Your task to perform on an android device: create a new album in the google photos Image 0: 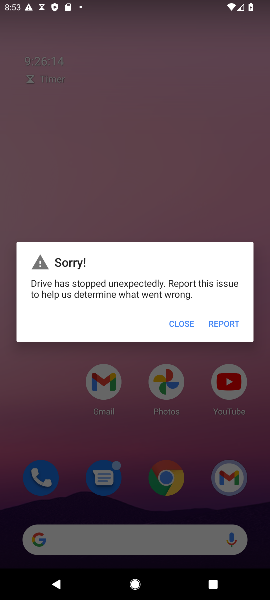
Step 0: press back button
Your task to perform on an android device: create a new album in the google photos Image 1: 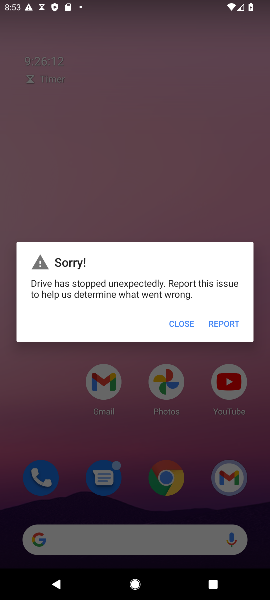
Step 1: press home button
Your task to perform on an android device: create a new album in the google photos Image 2: 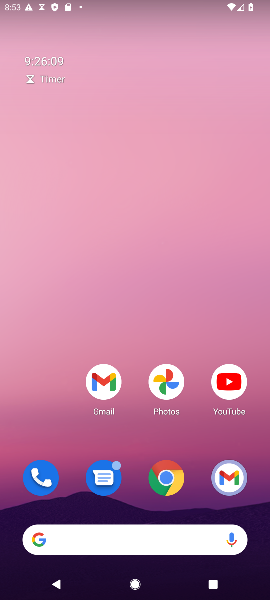
Step 2: click (151, 396)
Your task to perform on an android device: create a new album in the google photos Image 3: 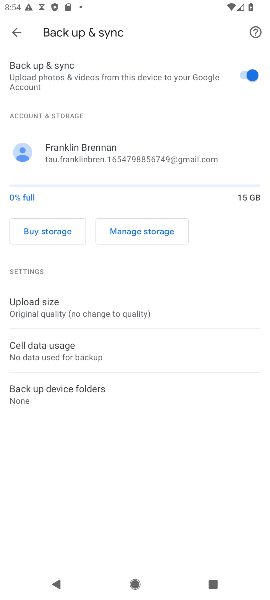
Step 3: click (13, 38)
Your task to perform on an android device: create a new album in the google photos Image 4: 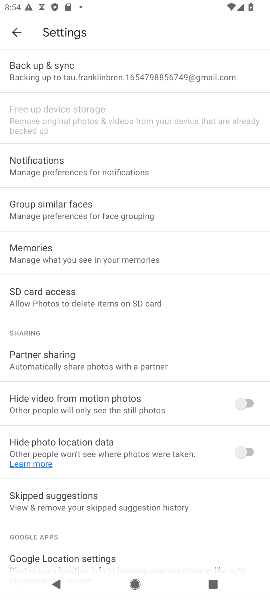
Step 4: click (9, 35)
Your task to perform on an android device: create a new album in the google photos Image 5: 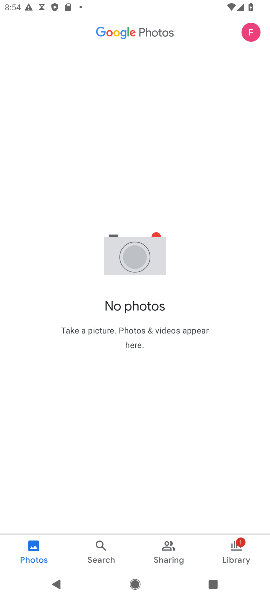
Step 5: click (237, 544)
Your task to perform on an android device: create a new album in the google photos Image 6: 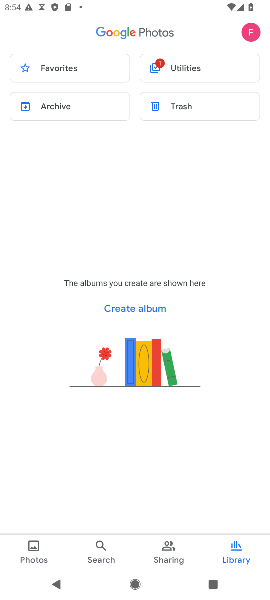
Step 6: click (145, 307)
Your task to perform on an android device: create a new album in the google photos Image 7: 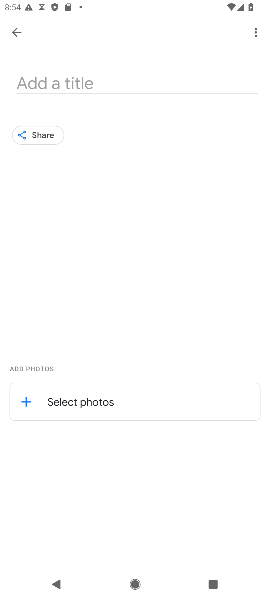
Step 7: click (121, 404)
Your task to perform on an android device: create a new album in the google photos Image 8: 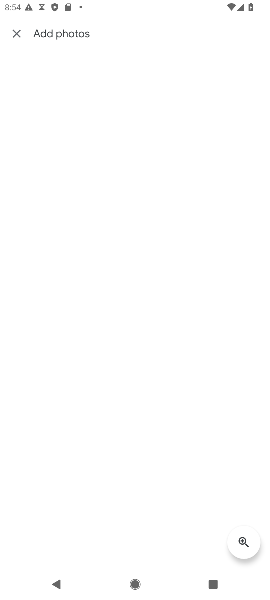
Step 8: task complete